Your task to perform on an android device: Do I have any events tomorrow? Image 0: 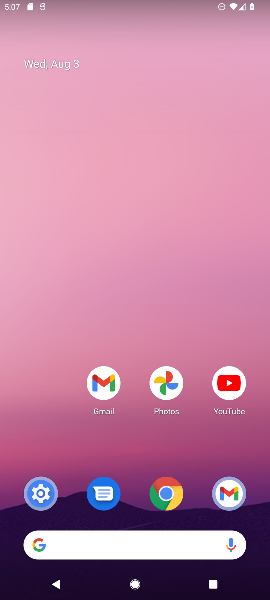
Step 0: press home button
Your task to perform on an android device: Do I have any events tomorrow? Image 1: 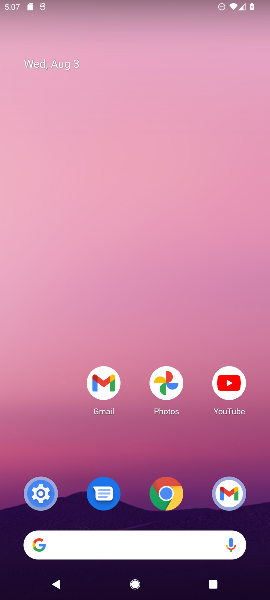
Step 1: drag from (64, 446) to (53, 148)
Your task to perform on an android device: Do I have any events tomorrow? Image 2: 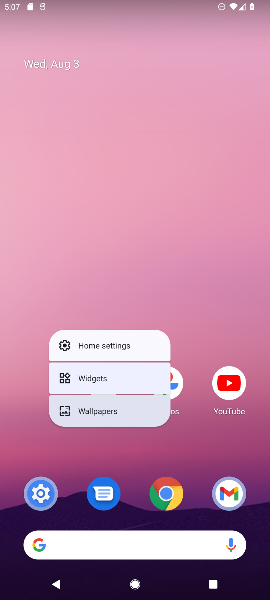
Step 2: click (26, 362)
Your task to perform on an android device: Do I have any events tomorrow? Image 3: 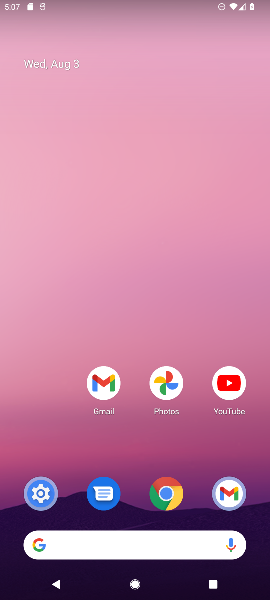
Step 3: drag from (49, 437) to (42, 116)
Your task to perform on an android device: Do I have any events tomorrow? Image 4: 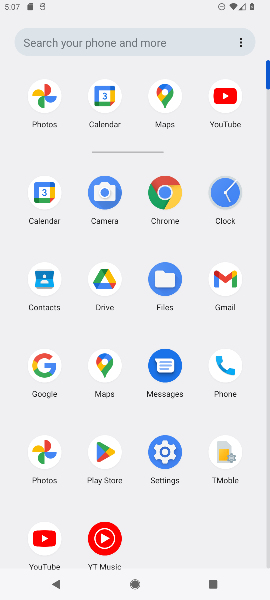
Step 4: click (45, 206)
Your task to perform on an android device: Do I have any events tomorrow? Image 5: 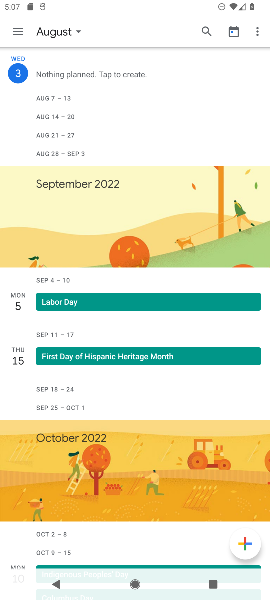
Step 5: click (80, 30)
Your task to perform on an android device: Do I have any events tomorrow? Image 6: 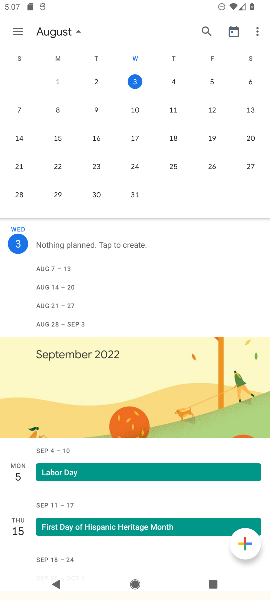
Step 6: click (173, 80)
Your task to perform on an android device: Do I have any events tomorrow? Image 7: 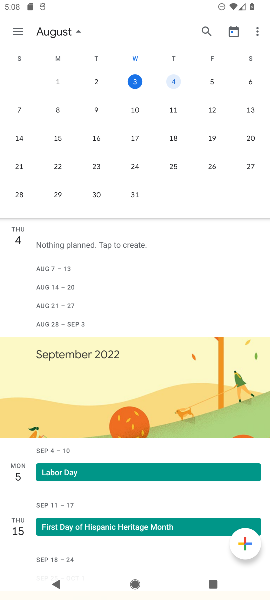
Step 7: task complete